Your task to perform on an android device: toggle data saver in the chrome app Image 0: 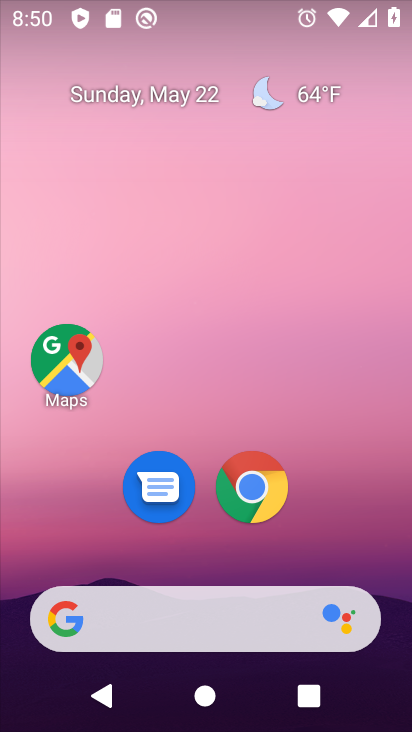
Step 0: click (244, 492)
Your task to perform on an android device: toggle data saver in the chrome app Image 1: 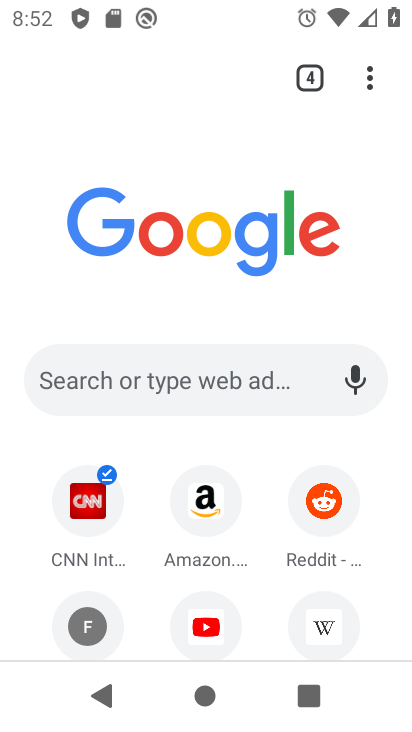
Step 1: drag from (365, 68) to (124, 548)
Your task to perform on an android device: toggle data saver in the chrome app Image 2: 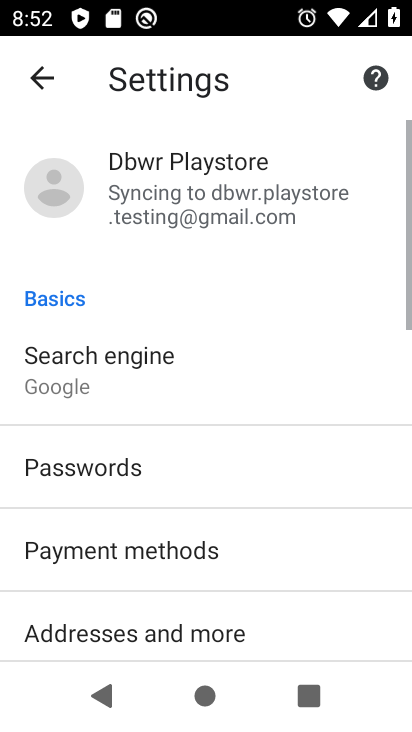
Step 2: drag from (152, 605) to (262, 109)
Your task to perform on an android device: toggle data saver in the chrome app Image 3: 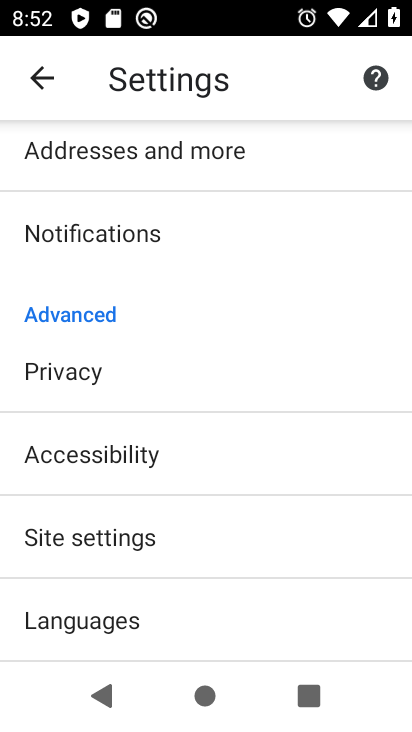
Step 3: drag from (117, 586) to (217, 157)
Your task to perform on an android device: toggle data saver in the chrome app Image 4: 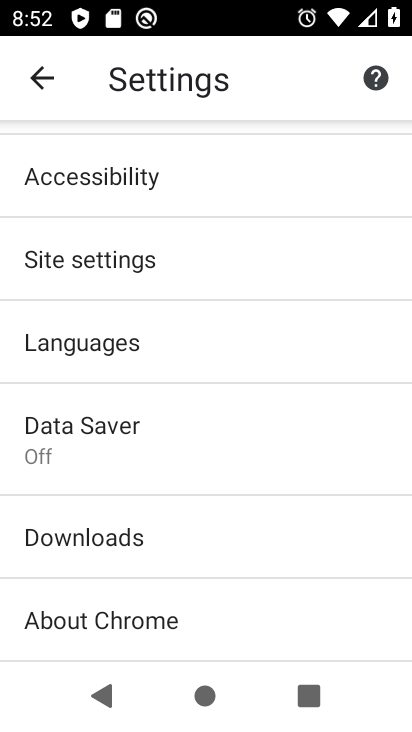
Step 4: click (85, 447)
Your task to perform on an android device: toggle data saver in the chrome app Image 5: 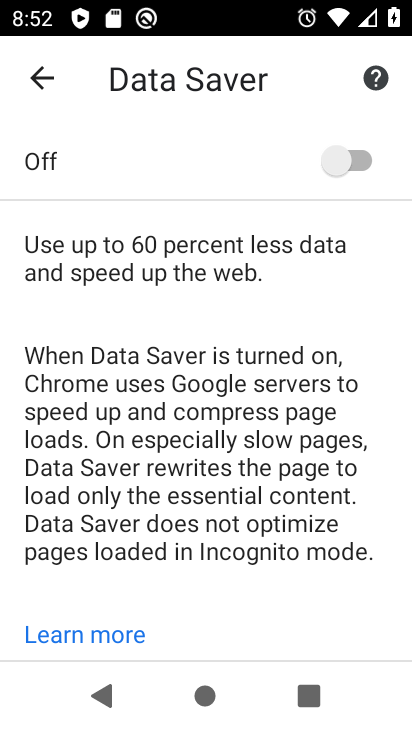
Step 5: click (340, 170)
Your task to perform on an android device: toggle data saver in the chrome app Image 6: 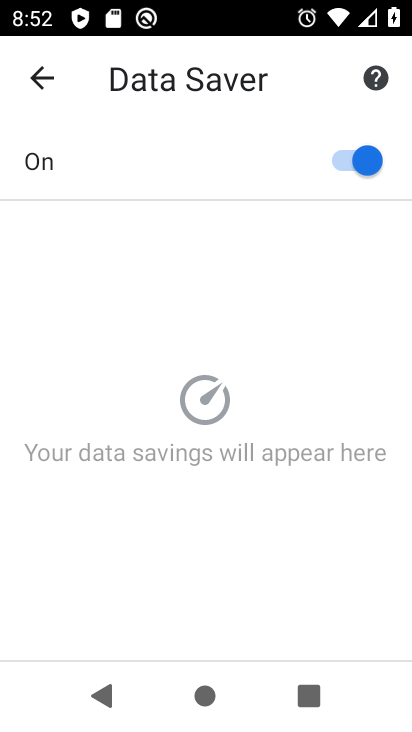
Step 6: task complete